Your task to perform on an android device: open app "Spotify" Image 0: 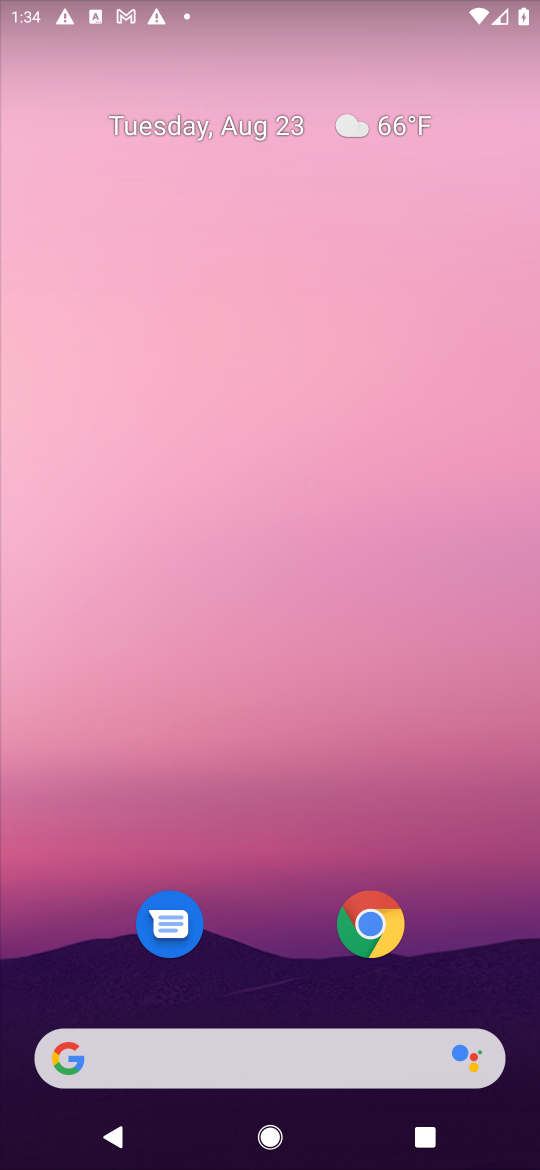
Step 0: press home button
Your task to perform on an android device: open app "Spotify" Image 1: 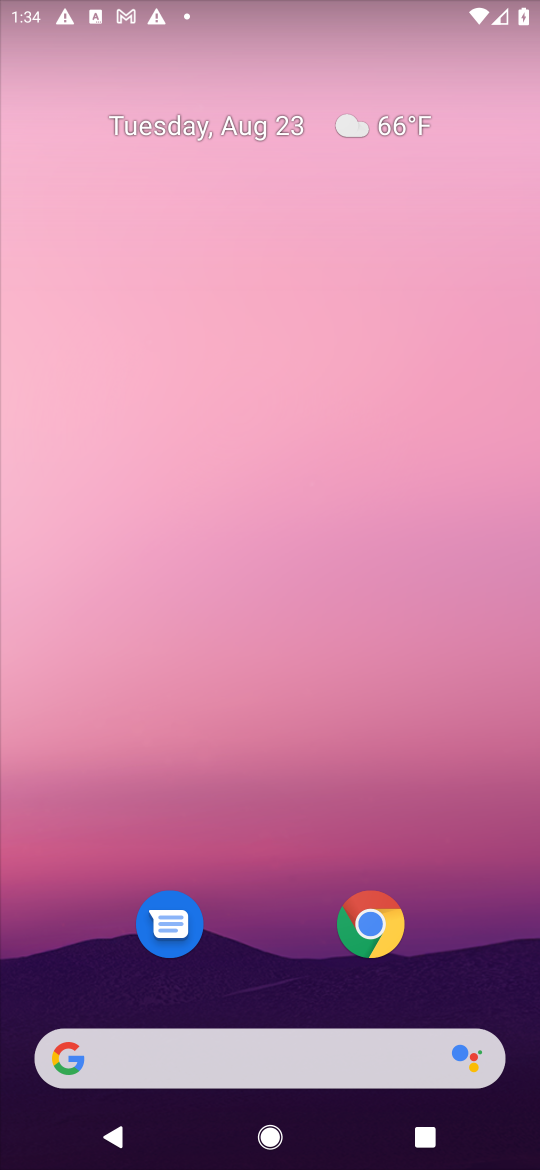
Step 1: drag from (481, 967) to (473, 134)
Your task to perform on an android device: open app "Spotify" Image 2: 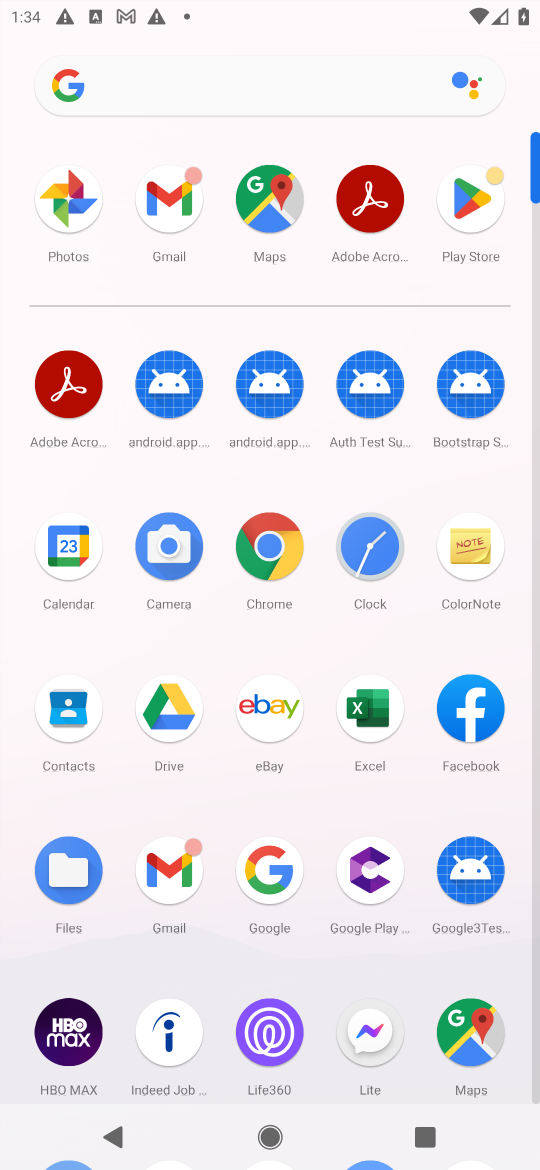
Step 2: click (473, 197)
Your task to perform on an android device: open app "Spotify" Image 3: 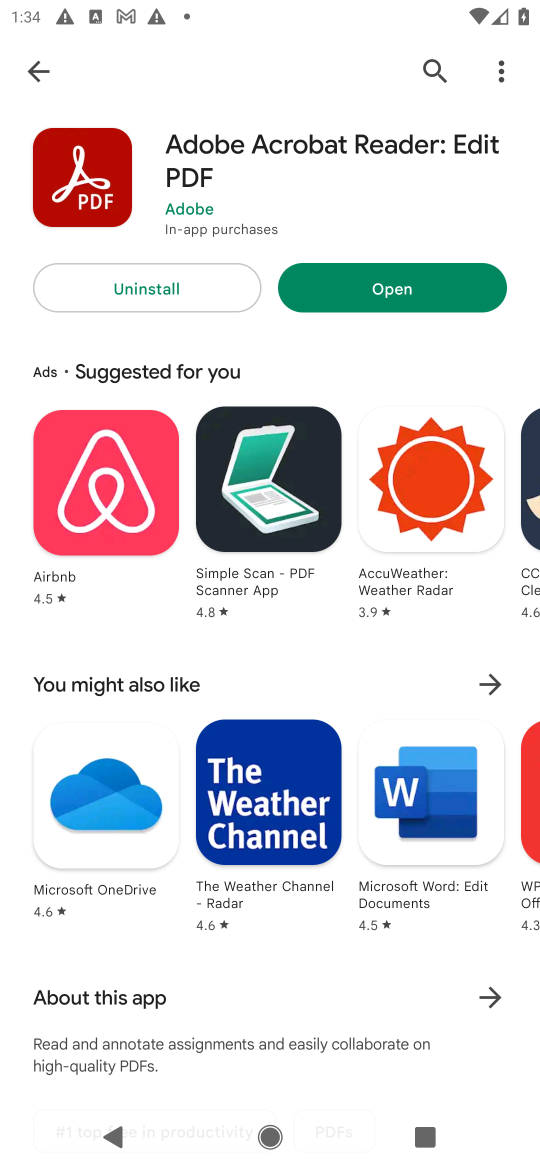
Step 3: press back button
Your task to perform on an android device: open app "Spotify" Image 4: 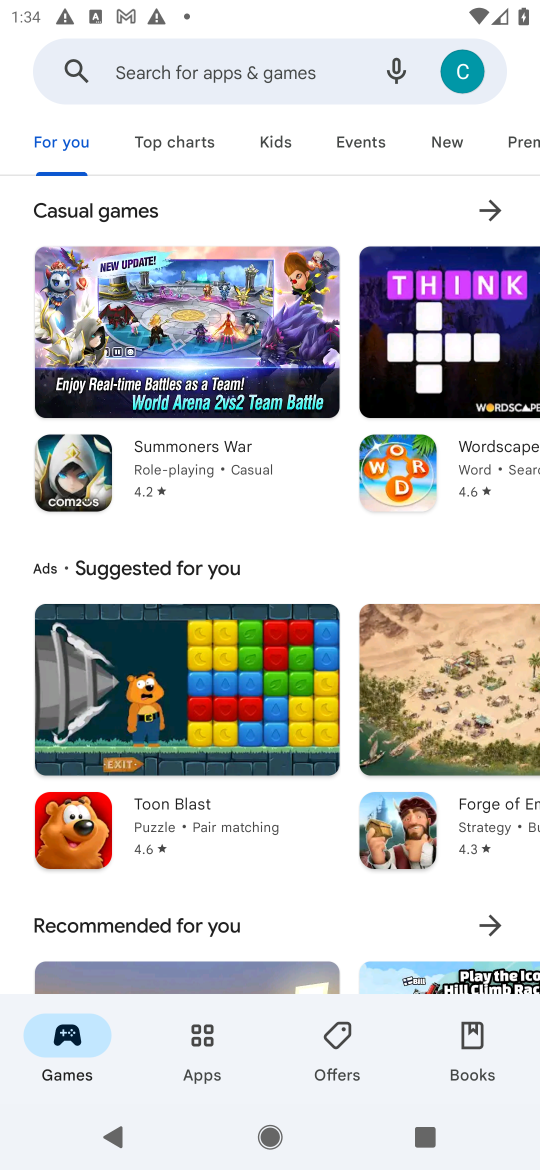
Step 4: click (280, 60)
Your task to perform on an android device: open app "Spotify" Image 5: 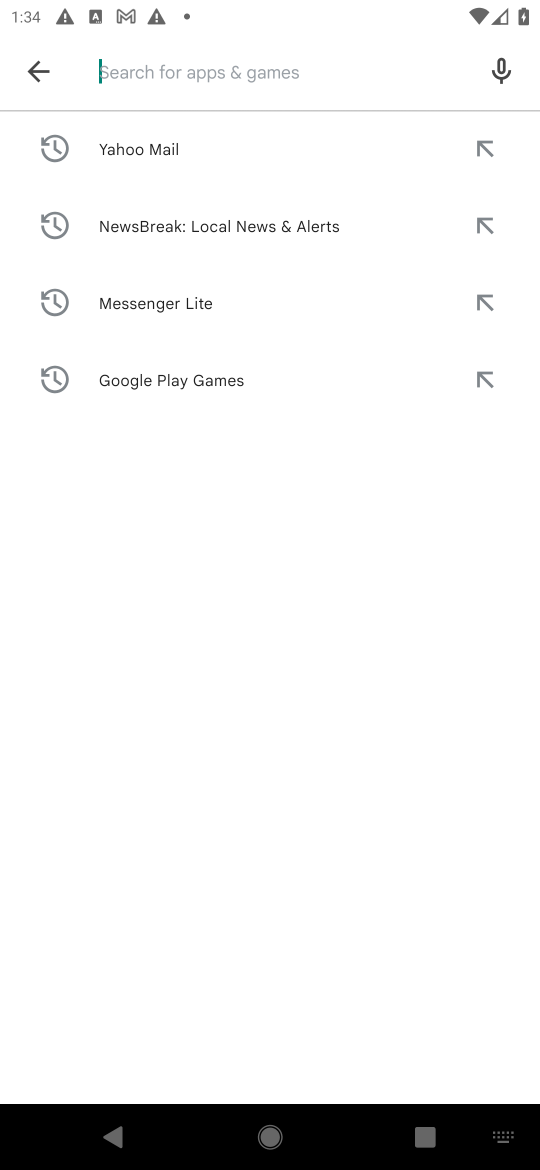
Step 5: type "Spotify"
Your task to perform on an android device: open app "Spotify" Image 6: 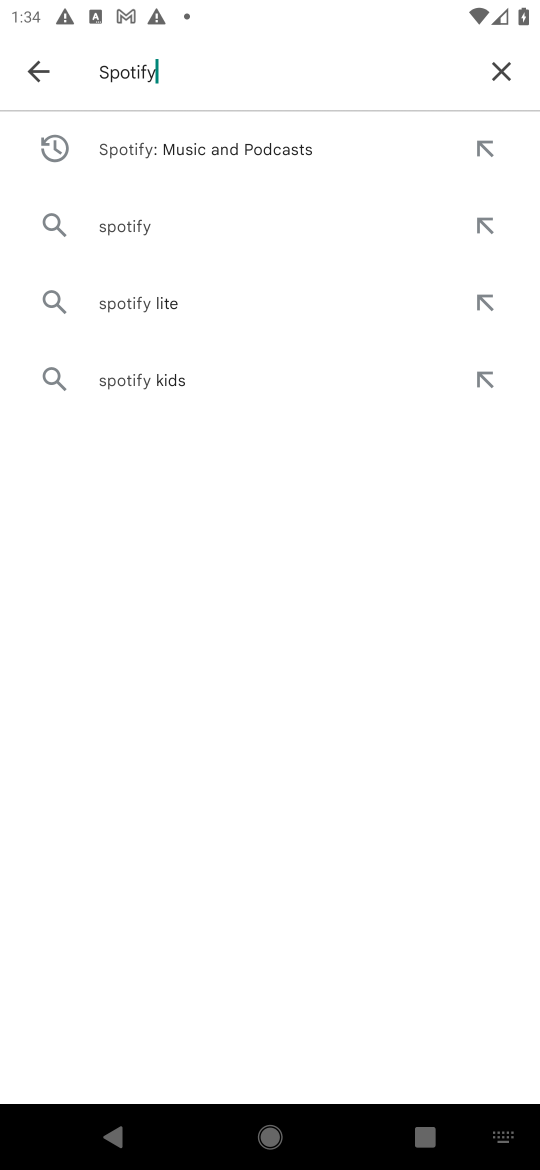
Step 6: press enter
Your task to perform on an android device: open app "Spotify" Image 7: 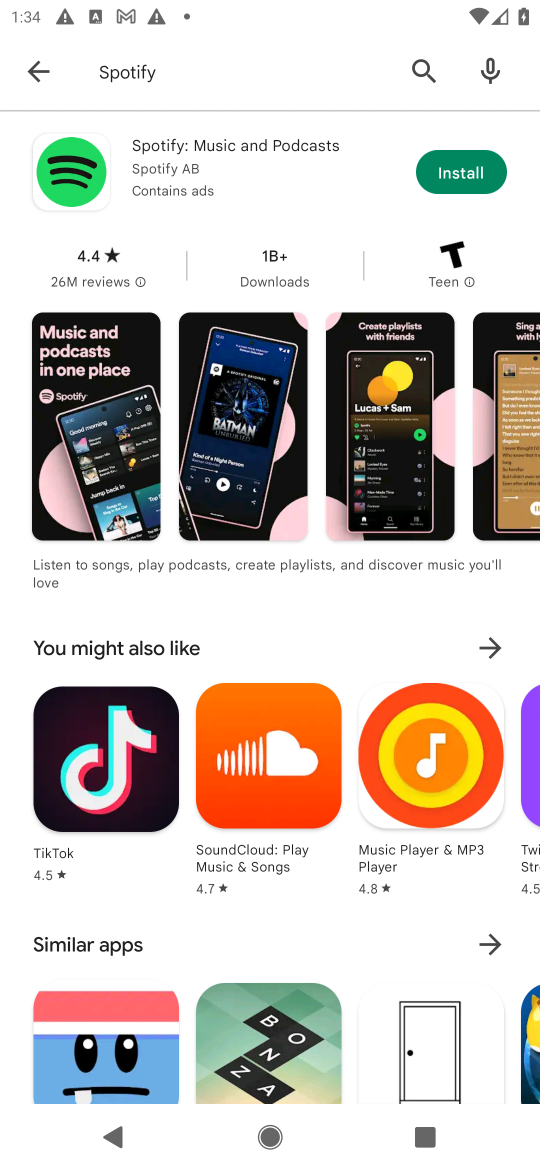
Step 7: task complete